Your task to perform on an android device: Go to accessibility settings Image 0: 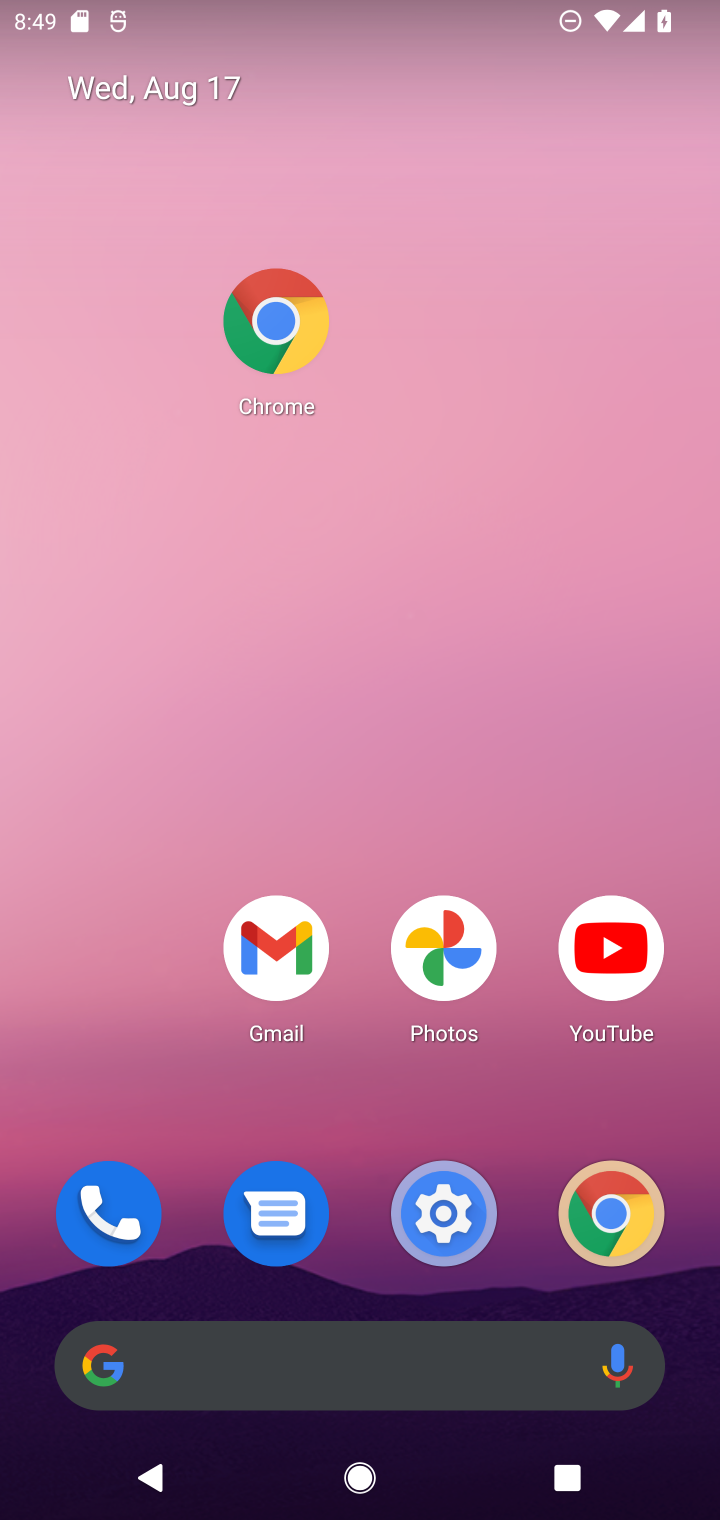
Step 0: click (431, 1206)
Your task to perform on an android device: Go to accessibility settings Image 1: 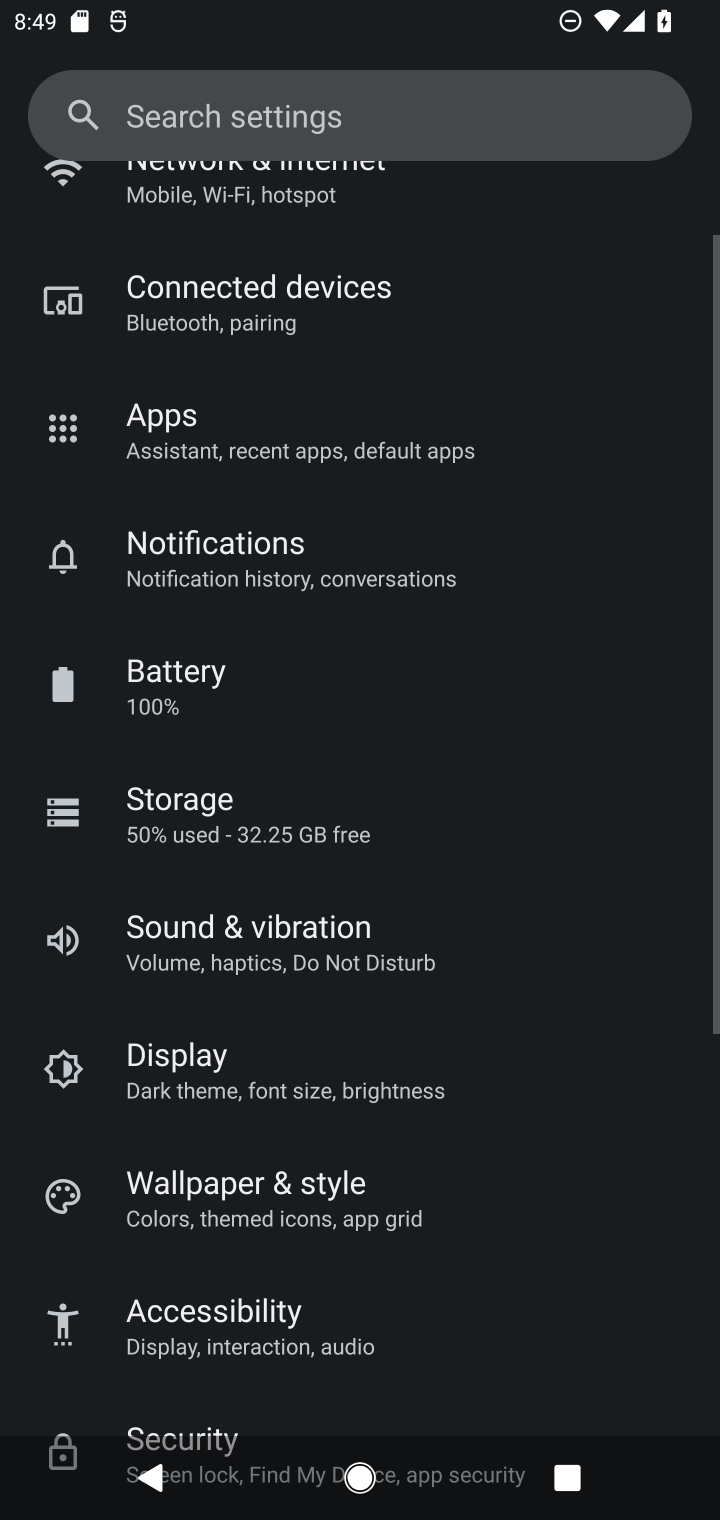
Step 1: click (431, 1206)
Your task to perform on an android device: Go to accessibility settings Image 2: 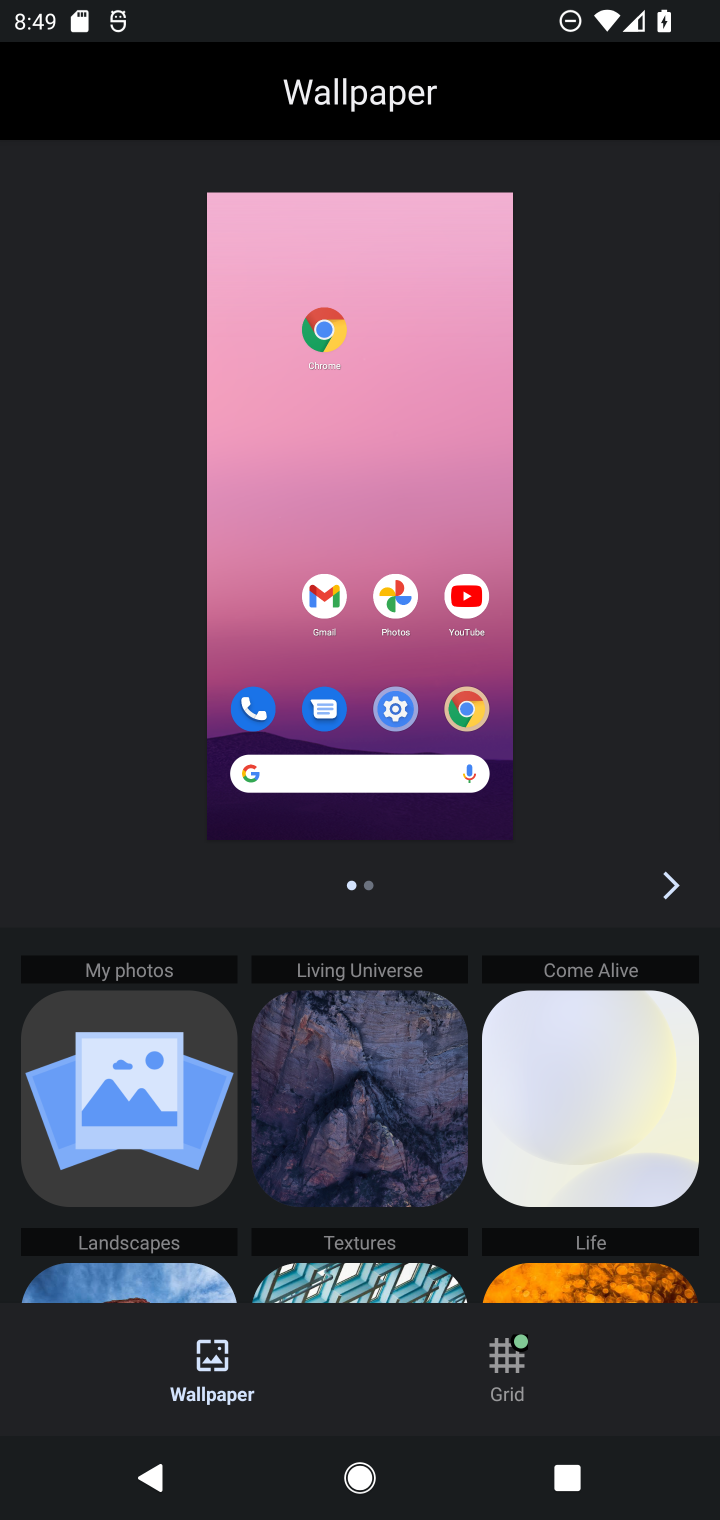
Step 2: press back button
Your task to perform on an android device: Go to accessibility settings Image 3: 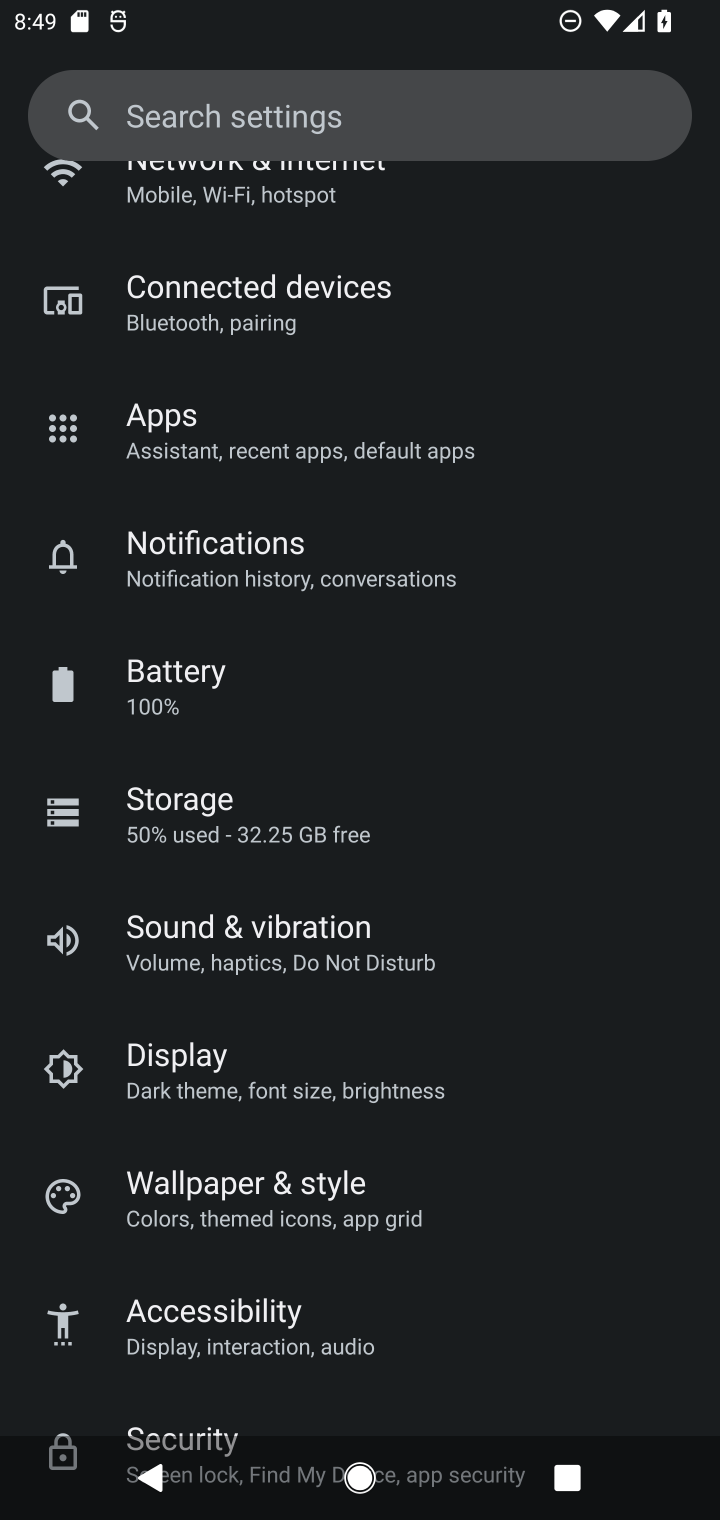
Step 3: click (356, 1297)
Your task to perform on an android device: Go to accessibility settings Image 4: 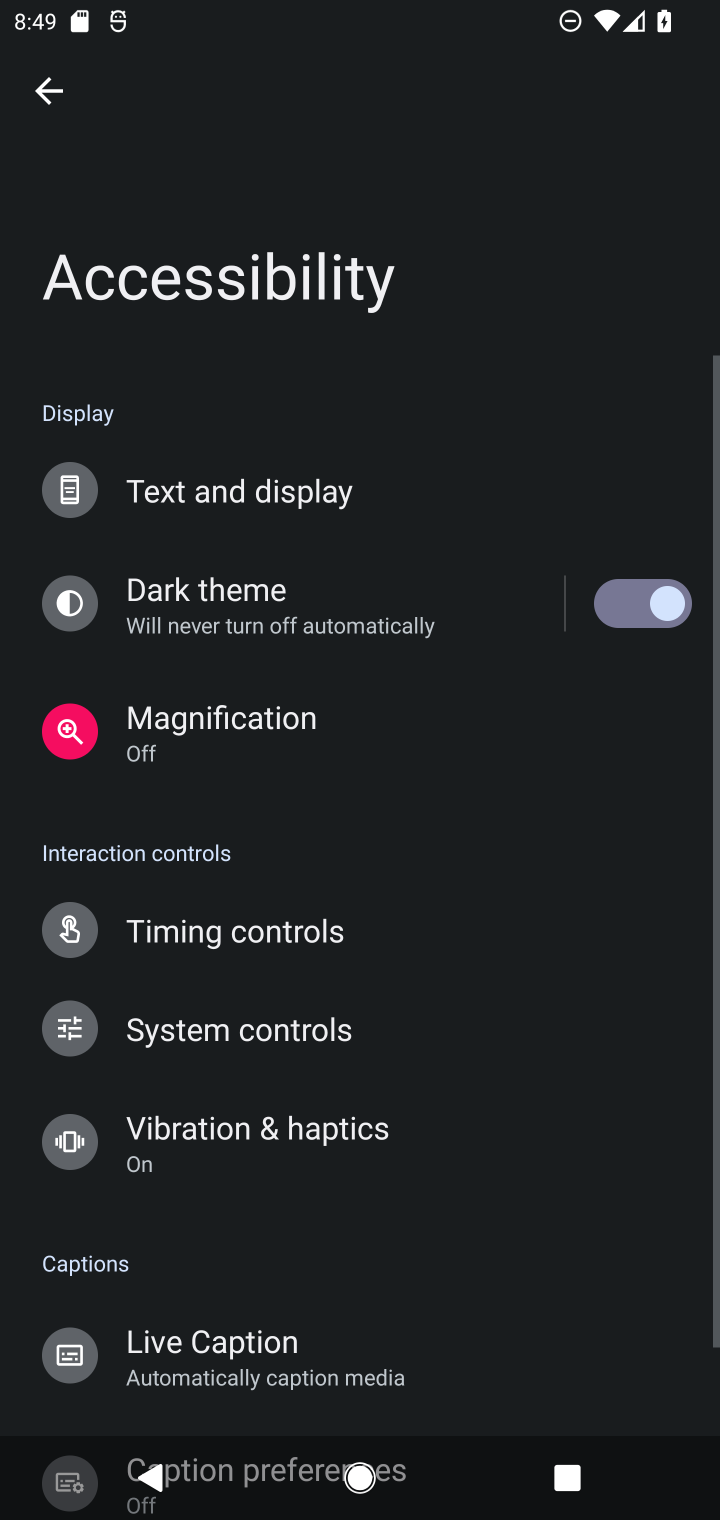
Step 4: task complete